Your task to perform on an android device: Set the phone to "Do not disturb". Image 0: 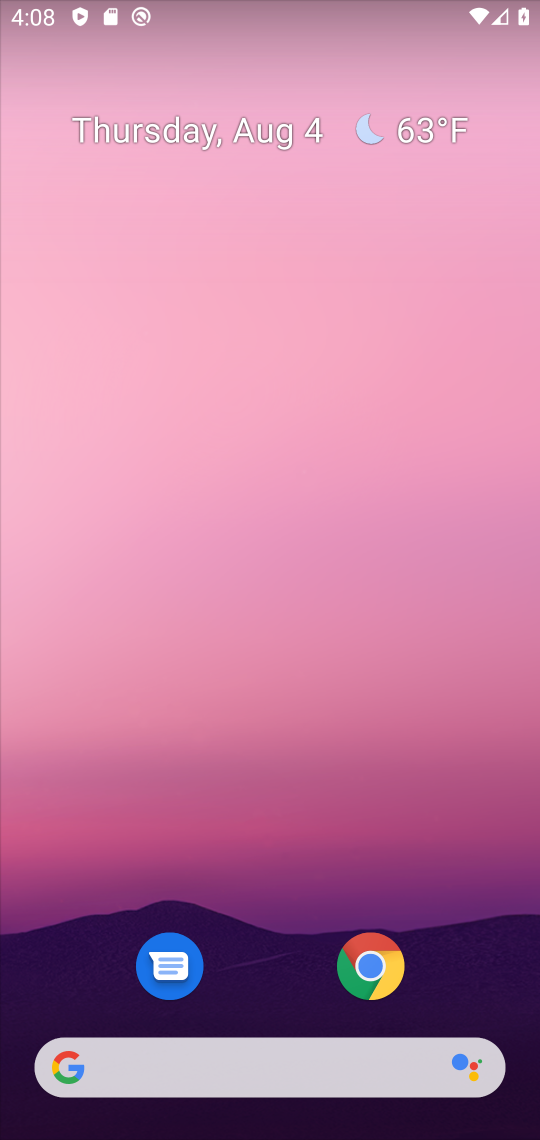
Step 0: drag from (250, 954) to (355, 236)
Your task to perform on an android device: Set the phone to "Do not disturb". Image 1: 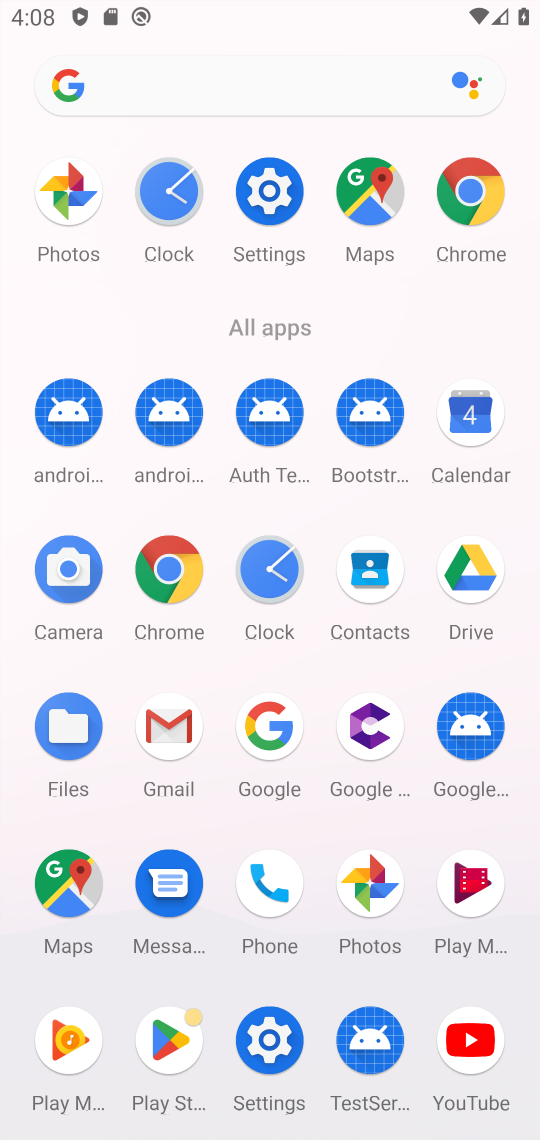
Step 1: click (260, 1053)
Your task to perform on an android device: Set the phone to "Do not disturb". Image 2: 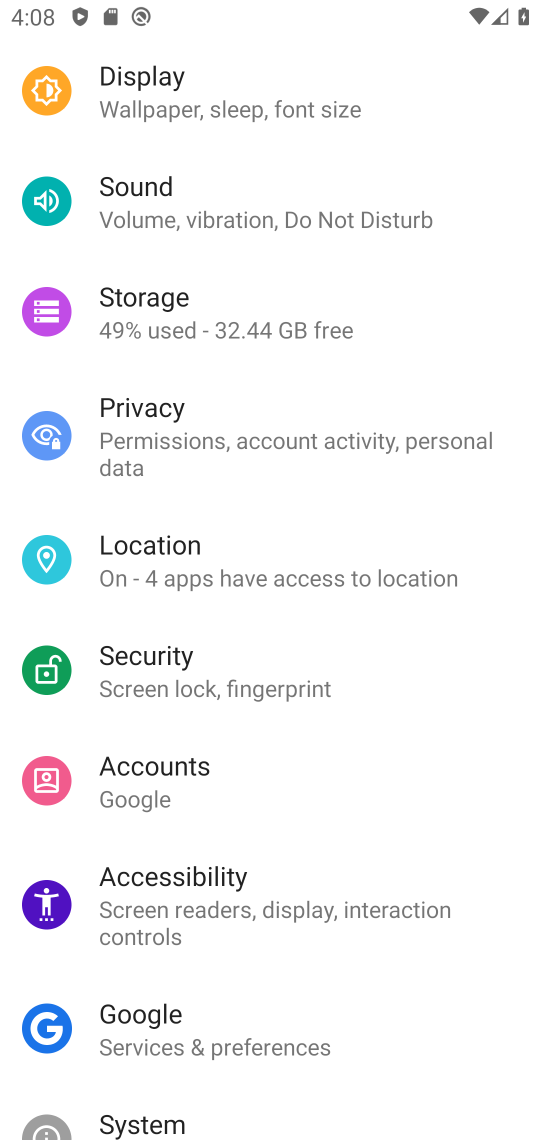
Step 2: click (200, 190)
Your task to perform on an android device: Set the phone to "Do not disturb". Image 3: 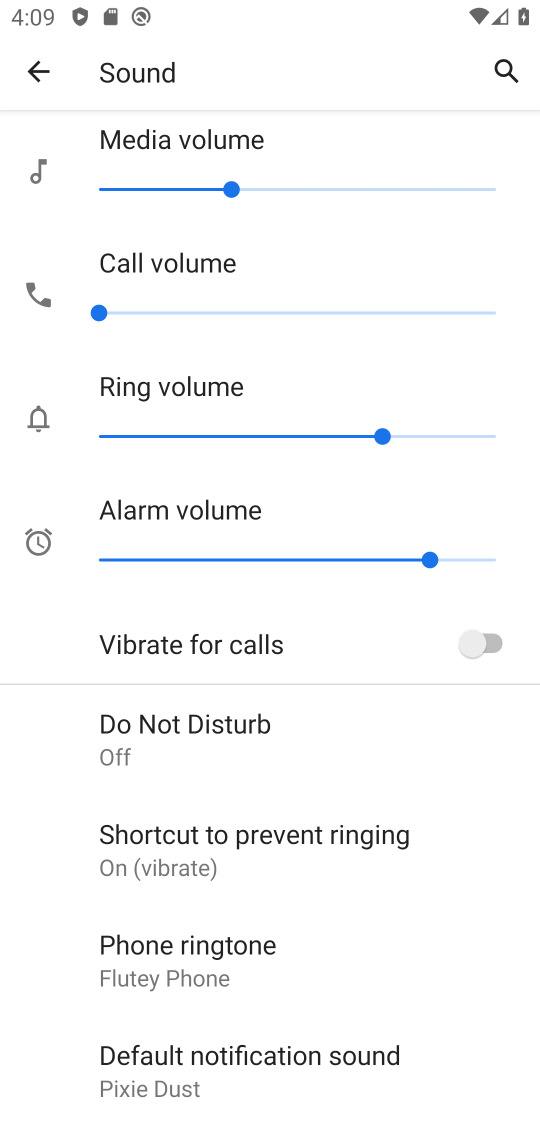
Step 3: click (108, 747)
Your task to perform on an android device: Set the phone to "Do not disturb". Image 4: 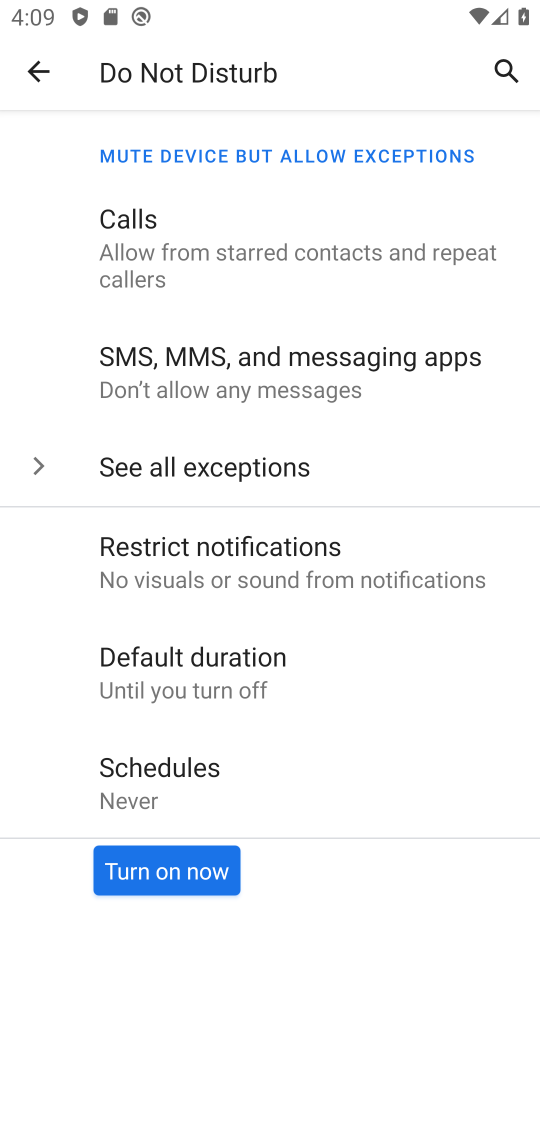
Step 4: click (133, 883)
Your task to perform on an android device: Set the phone to "Do not disturb". Image 5: 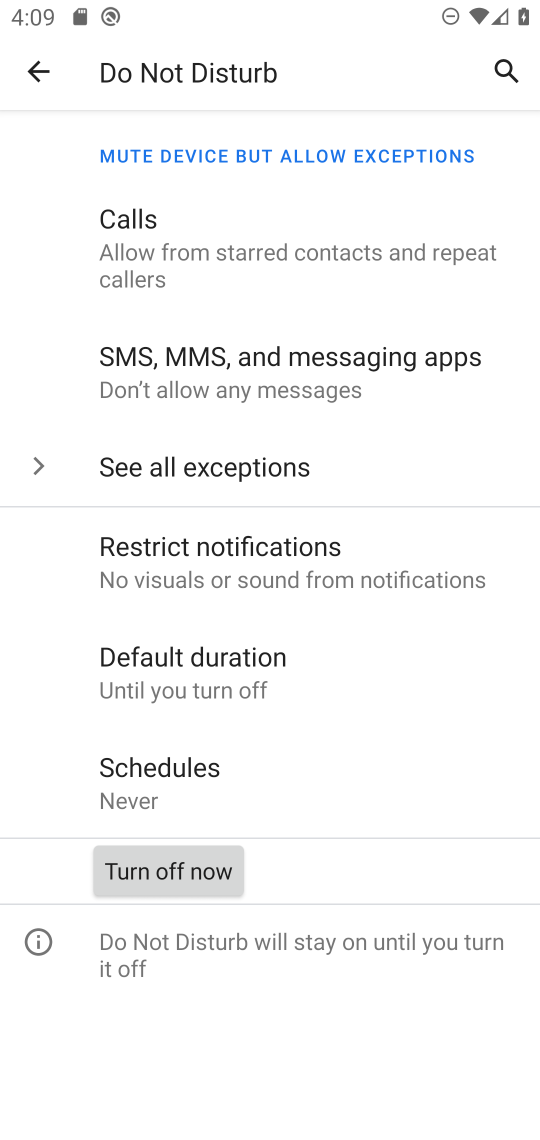
Step 5: task complete